Your task to perform on an android device: Search for "macbook pro 15 inch" on newegg, select the first entry, and add it to the cart. Image 0: 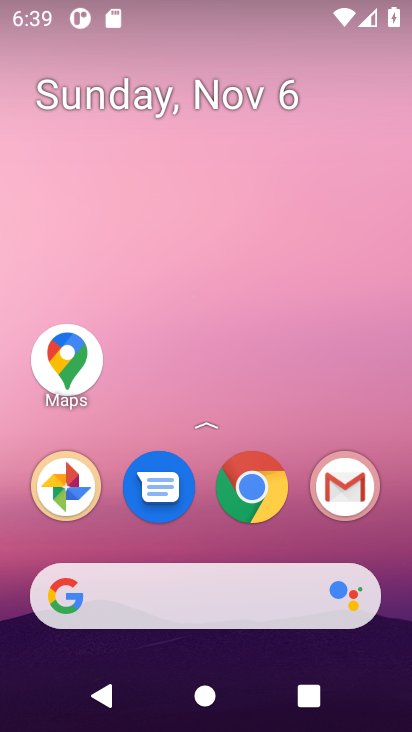
Step 0: click (247, 509)
Your task to perform on an android device: Search for "macbook pro 15 inch" on newegg, select the first entry, and add it to the cart. Image 1: 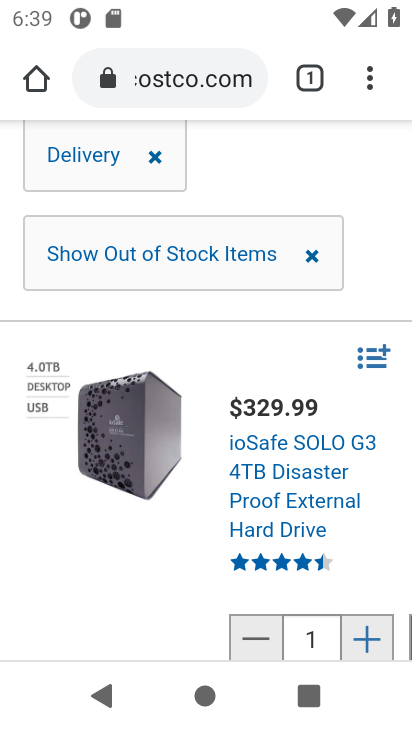
Step 1: click (178, 81)
Your task to perform on an android device: Search for "macbook pro 15 inch" on newegg, select the first entry, and add it to the cart. Image 2: 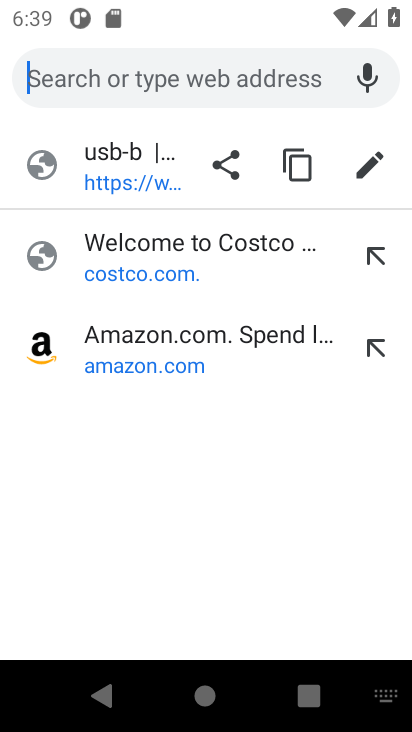
Step 2: type "newegg"
Your task to perform on an android device: Search for "macbook pro 15 inch" on newegg, select the first entry, and add it to the cart. Image 3: 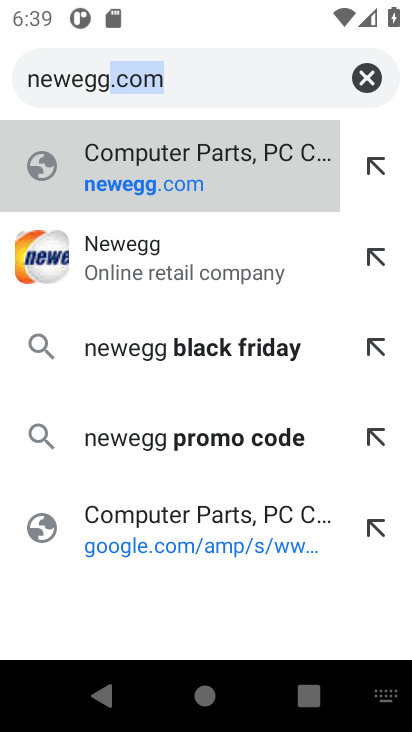
Step 3: click (175, 232)
Your task to perform on an android device: Search for "macbook pro 15 inch" on newegg, select the first entry, and add it to the cart. Image 4: 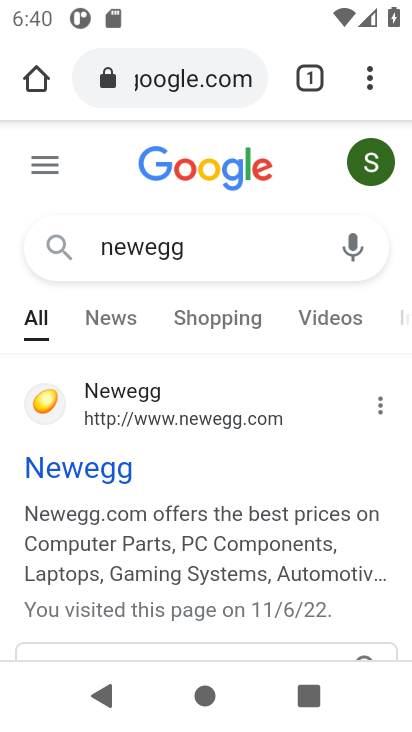
Step 4: click (114, 457)
Your task to perform on an android device: Search for "macbook pro 15 inch" on newegg, select the first entry, and add it to the cart. Image 5: 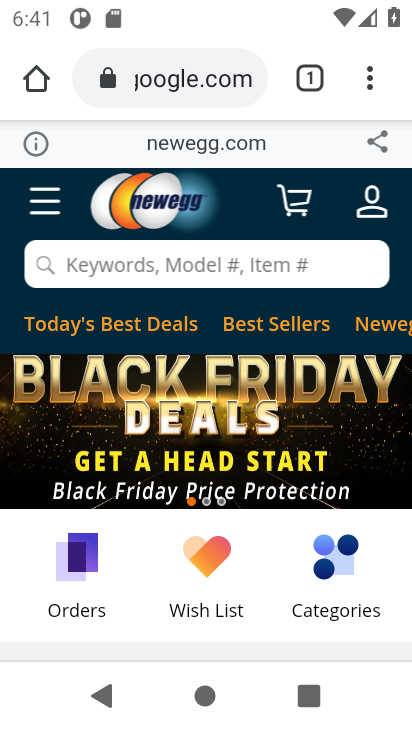
Step 5: click (131, 252)
Your task to perform on an android device: Search for "macbook pro 15 inch" on newegg, select the first entry, and add it to the cart. Image 6: 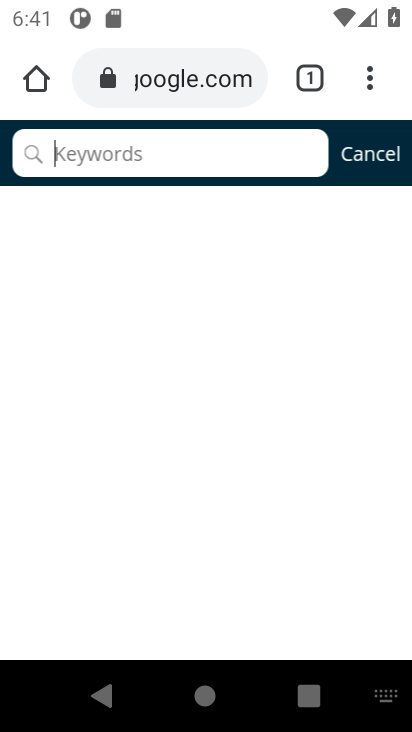
Step 6: type "macbook pro 15 inch"
Your task to perform on an android device: Search for "macbook pro 15 inch" on newegg, select the first entry, and add it to the cart. Image 7: 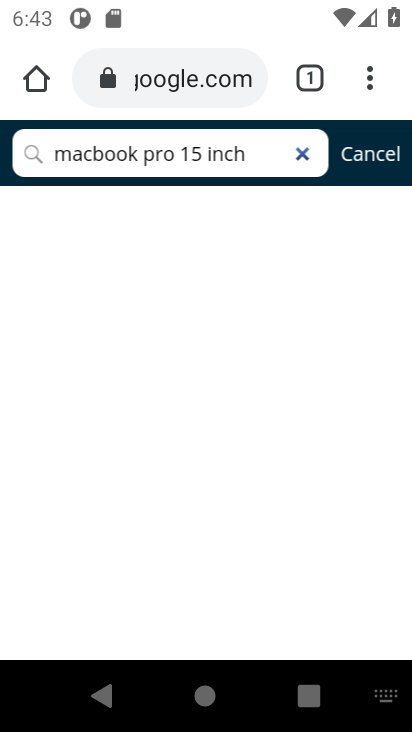
Step 7: task complete